Your task to perform on an android device: check storage Image 0: 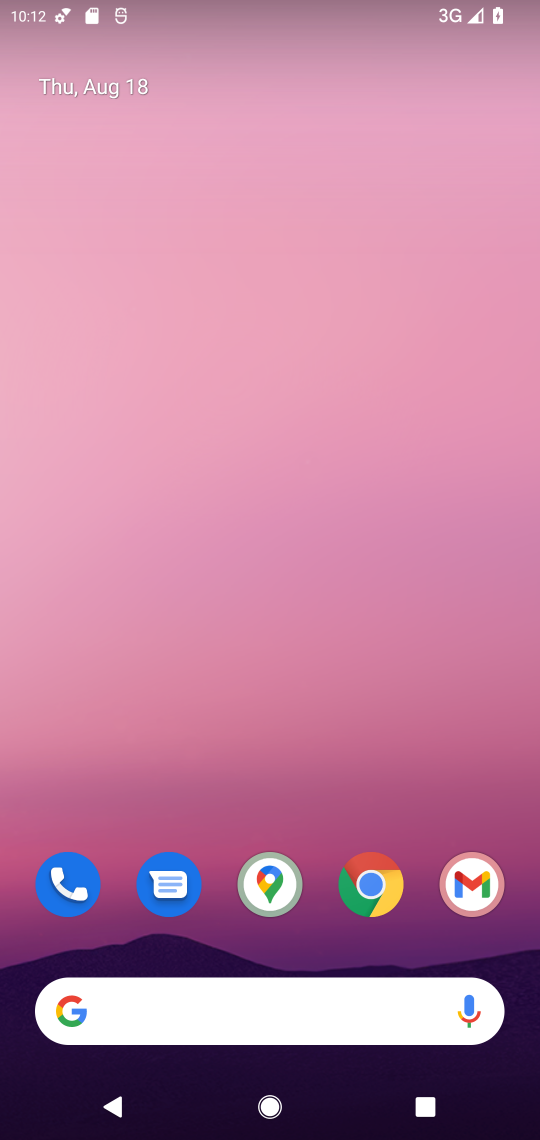
Step 0: drag from (294, 949) to (266, 117)
Your task to perform on an android device: check storage Image 1: 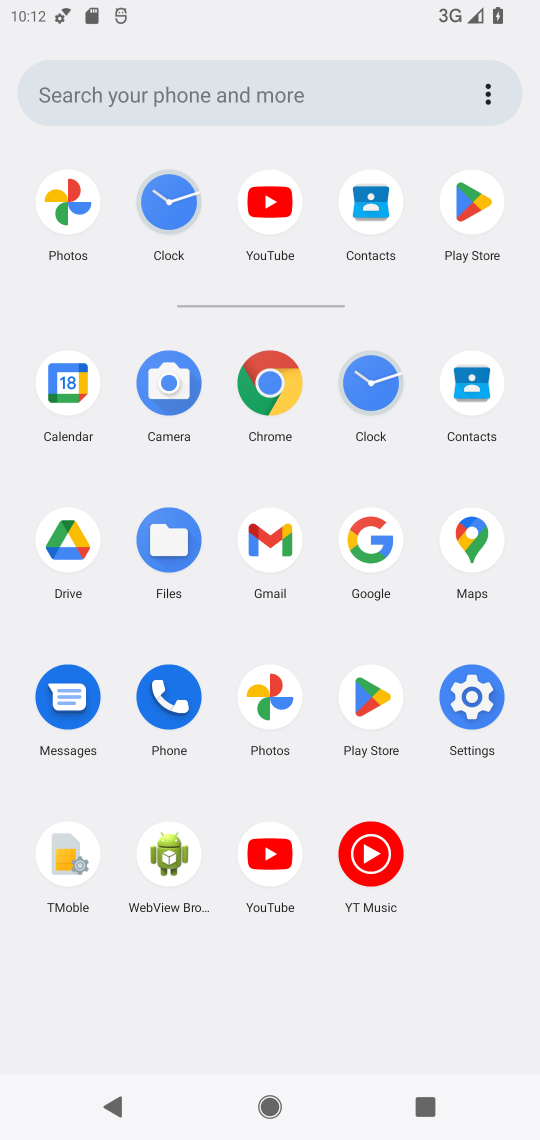
Step 1: click (458, 697)
Your task to perform on an android device: check storage Image 2: 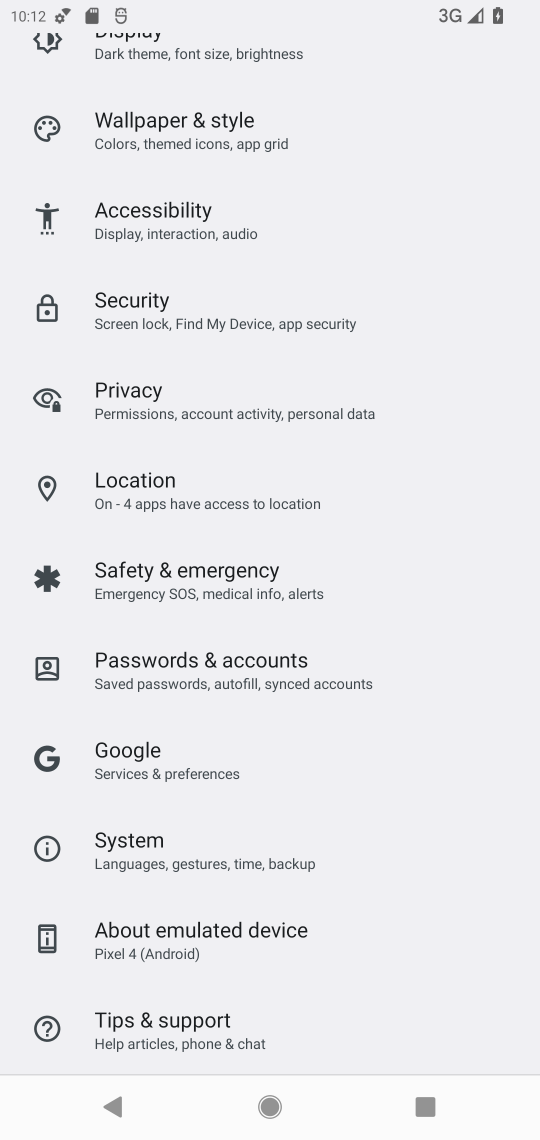
Step 2: drag from (272, 101) to (244, 787)
Your task to perform on an android device: check storage Image 3: 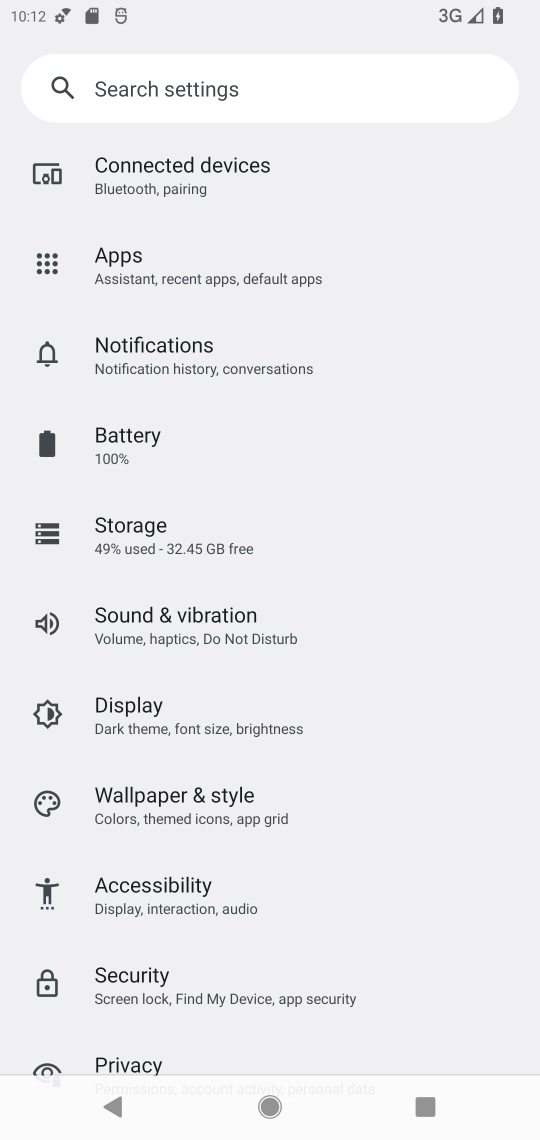
Step 3: drag from (359, 109) to (305, 688)
Your task to perform on an android device: check storage Image 4: 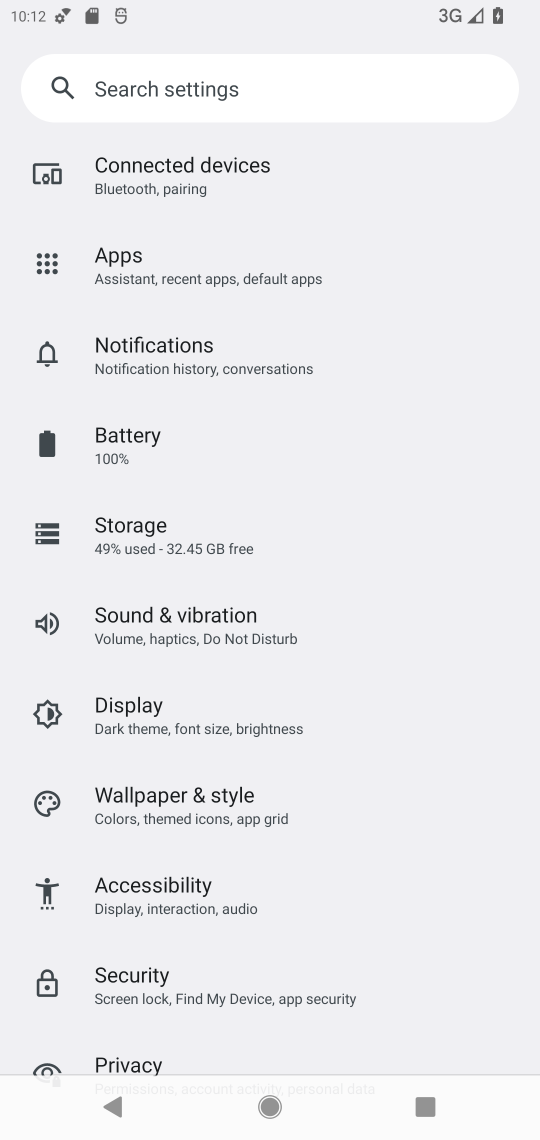
Step 4: click (196, 519)
Your task to perform on an android device: check storage Image 5: 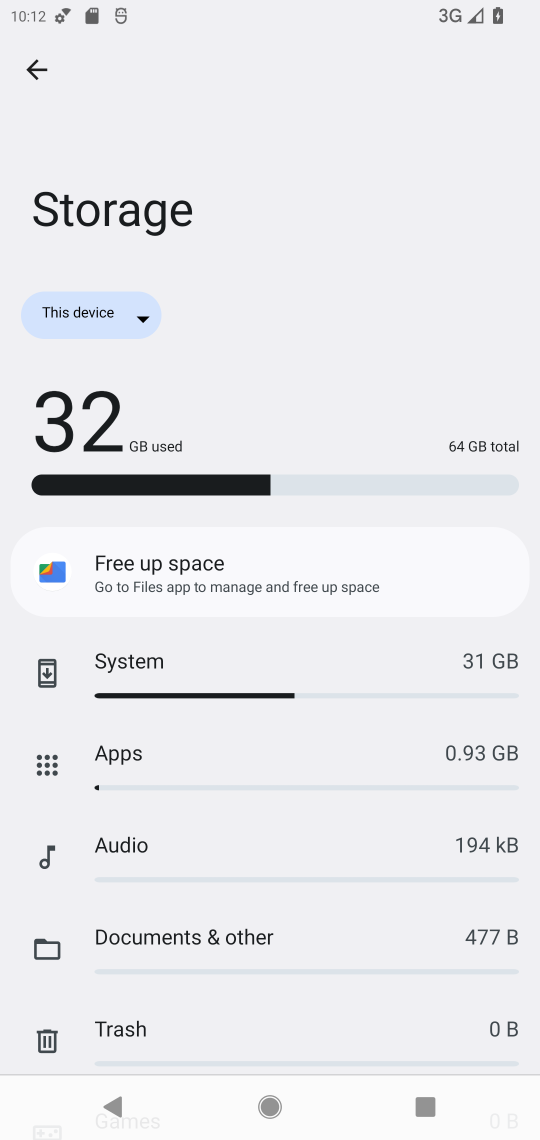
Step 5: task complete